Your task to perform on an android device: Search for the new Nintendo switch on Best Buy Image 0: 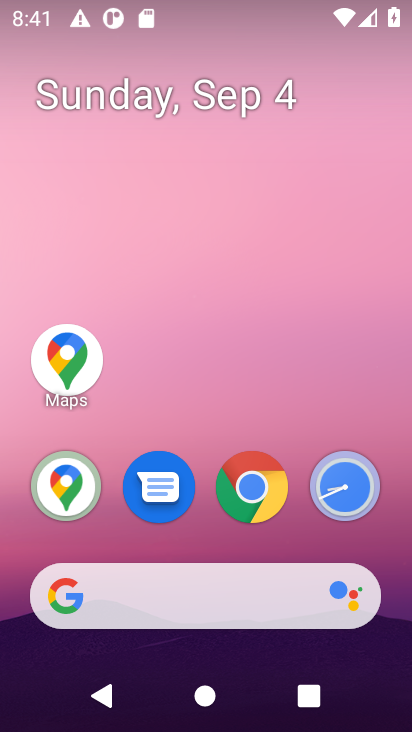
Step 0: click (262, 477)
Your task to perform on an android device: Search for the new Nintendo switch on Best Buy Image 1: 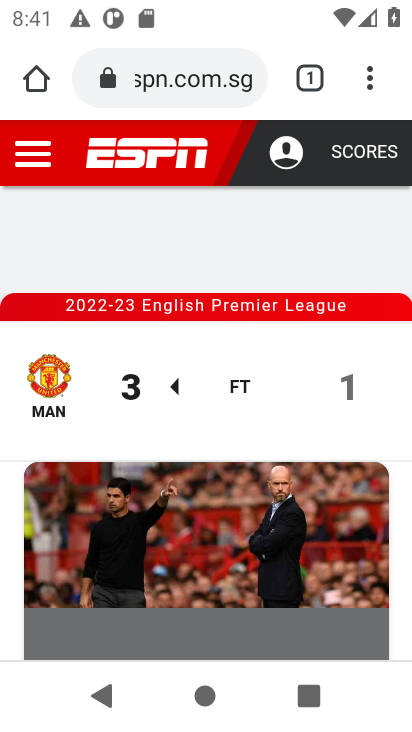
Step 1: task complete